Your task to perform on an android device: open a bookmark in the chrome app Image 0: 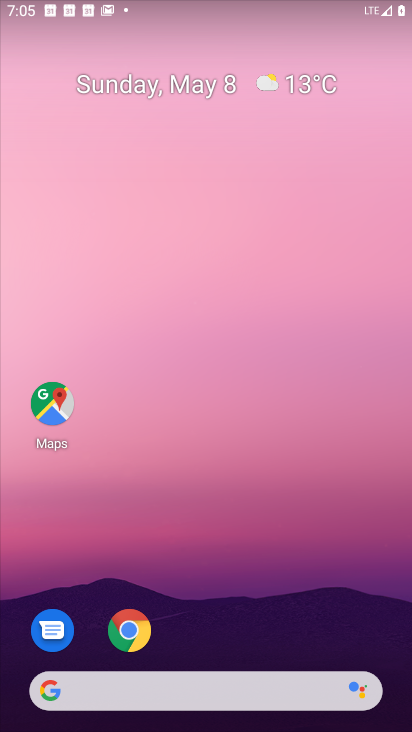
Step 0: click (130, 634)
Your task to perform on an android device: open a bookmark in the chrome app Image 1: 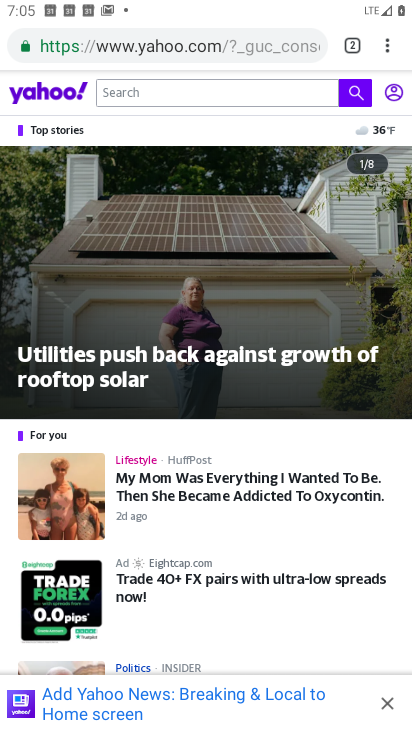
Step 1: click (388, 44)
Your task to perform on an android device: open a bookmark in the chrome app Image 2: 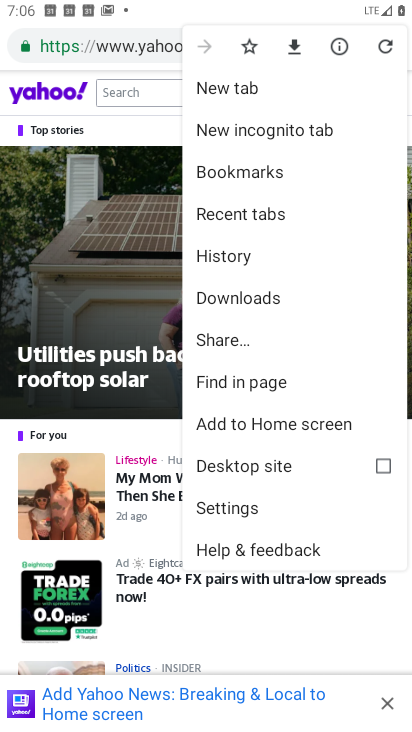
Step 2: click (246, 172)
Your task to perform on an android device: open a bookmark in the chrome app Image 3: 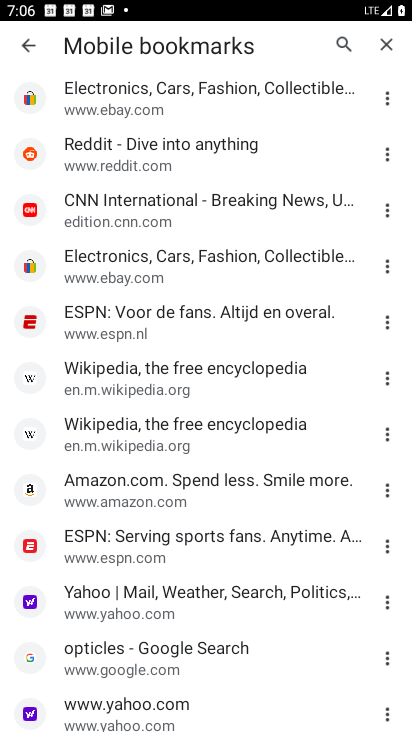
Step 3: task complete